Your task to perform on an android device: View the shopping cart on ebay. Image 0: 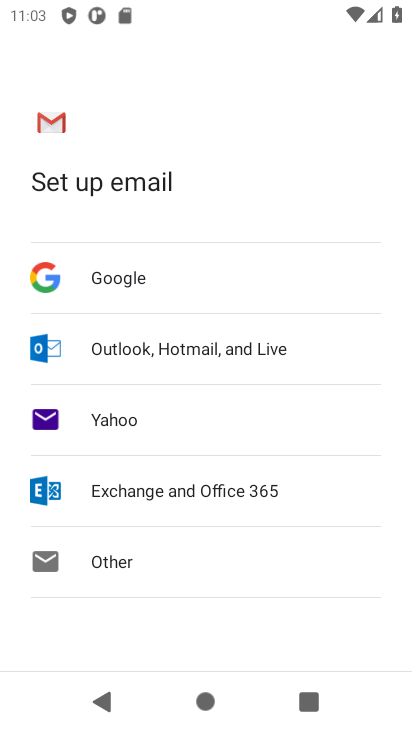
Step 0: press home button
Your task to perform on an android device: View the shopping cart on ebay. Image 1: 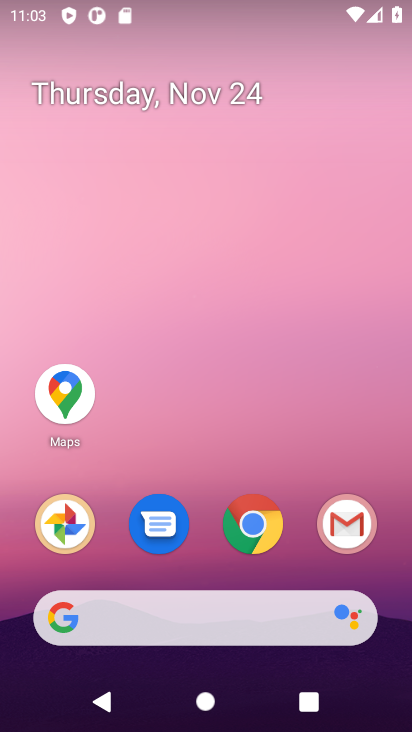
Step 1: click (251, 520)
Your task to perform on an android device: View the shopping cart on ebay. Image 2: 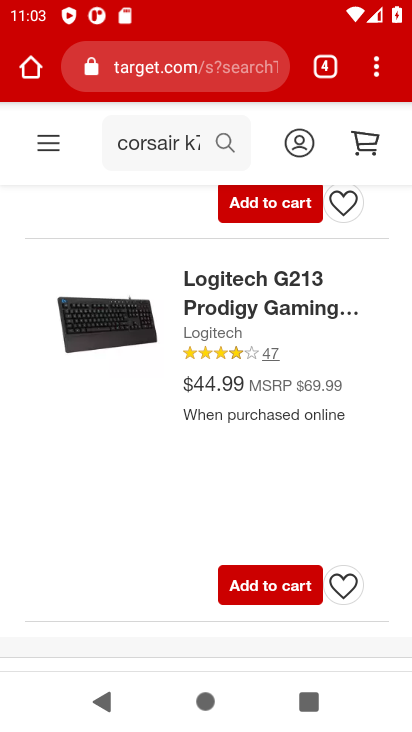
Step 2: click (173, 74)
Your task to perform on an android device: View the shopping cart on ebay. Image 3: 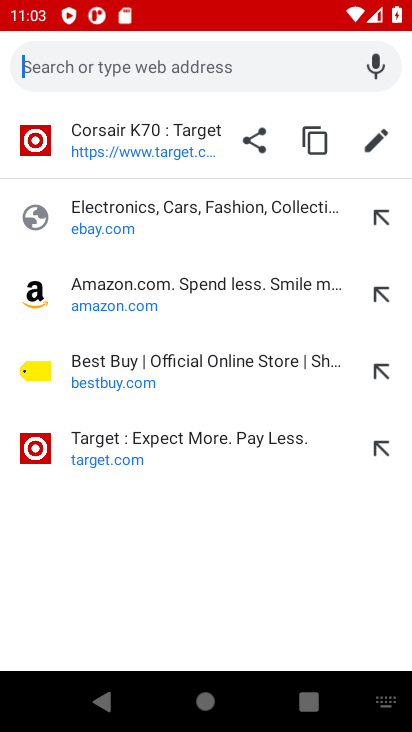
Step 3: click (92, 231)
Your task to perform on an android device: View the shopping cart on ebay. Image 4: 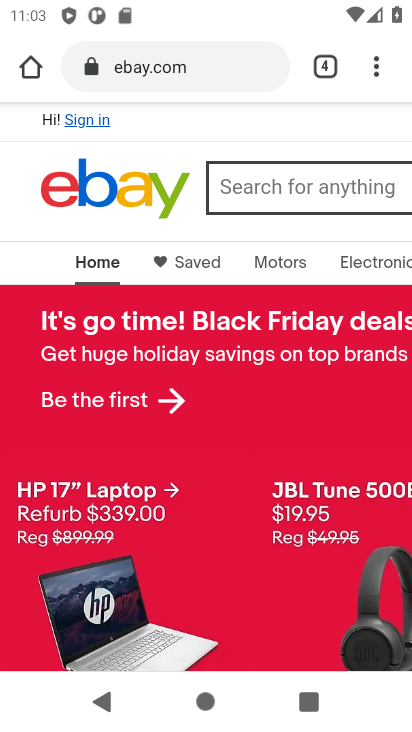
Step 4: drag from (246, 148) to (26, 159)
Your task to perform on an android device: View the shopping cart on ebay. Image 5: 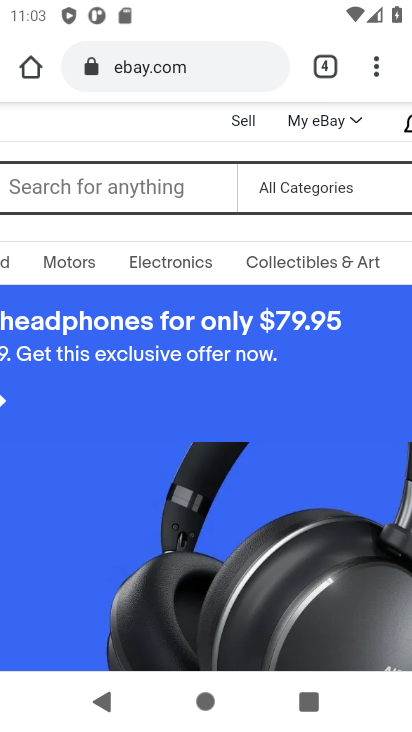
Step 5: drag from (328, 146) to (74, 155)
Your task to perform on an android device: View the shopping cart on ebay. Image 6: 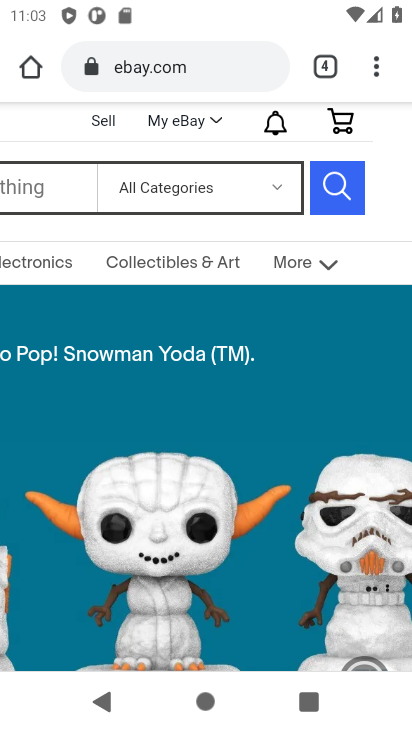
Step 6: click (348, 121)
Your task to perform on an android device: View the shopping cart on ebay. Image 7: 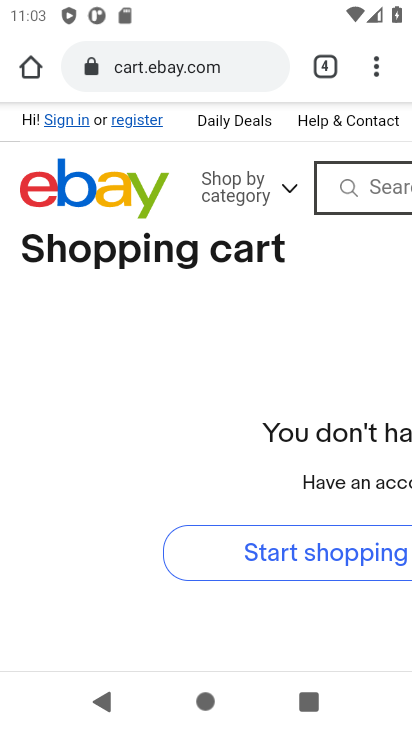
Step 7: task complete